Your task to perform on an android device: turn on priority inbox in the gmail app Image 0: 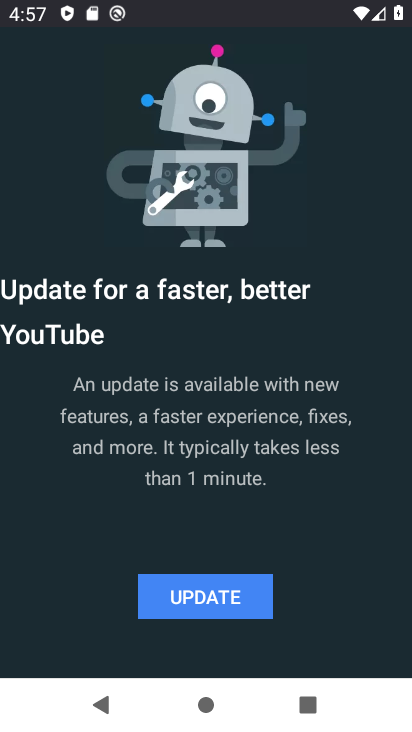
Step 0: press home button
Your task to perform on an android device: turn on priority inbox in the gmail app Image 1: 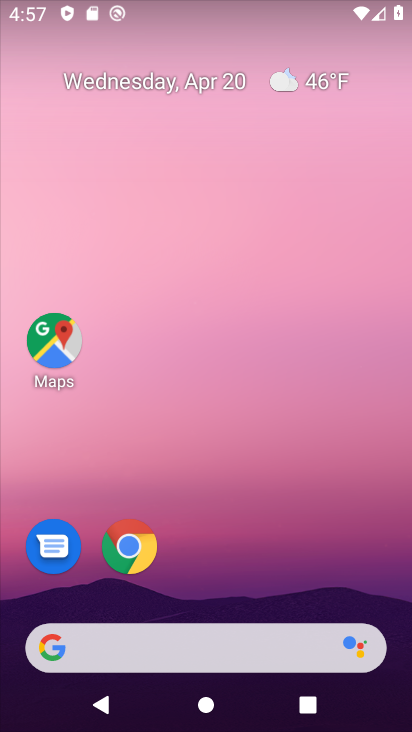
Step 1: drag from (262, 503) to (315, 122)
Your task to perform on an android device: turn on priority inbox in the gmail app Image 2: 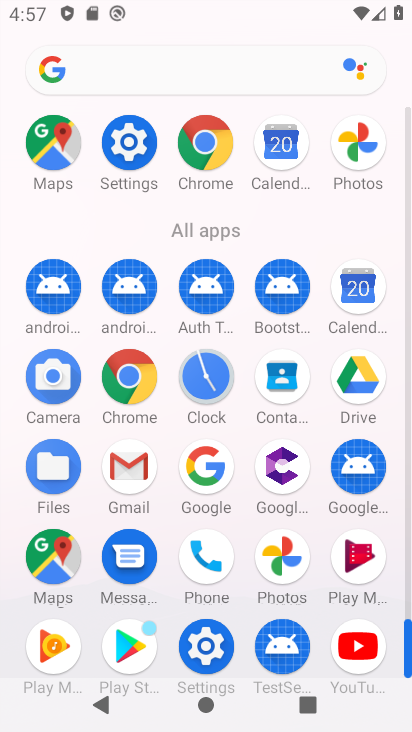
Step 2: click (128, 474)
Your task to perform on an android device: turn on priority inbox in the gmail app Image 3: 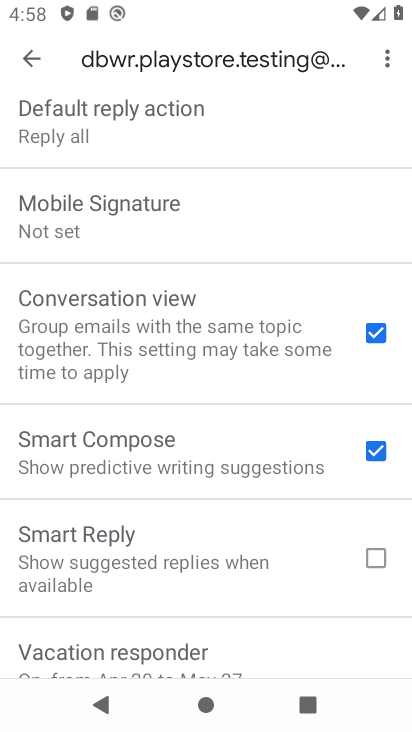
Step 3: drag from (82, 207) to (59, 585)
Your task to perform on an android device: turn on priority inbox in the gmail app Image 4: 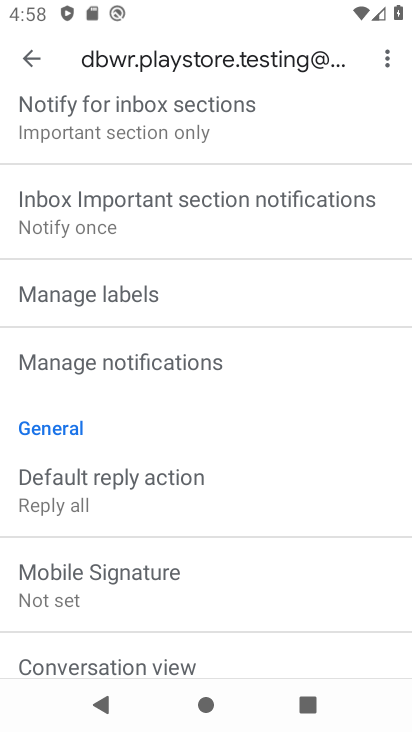
Step 4: drag from (185, 190) to (164, 595)
Your task to perform on an android device: turn on priority inbox in the gmail app Image 5: 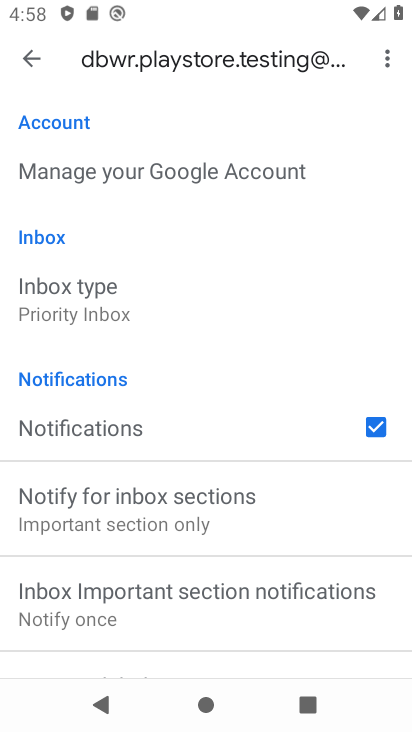
Step 5: click (74, 299)
Your task to perform on an android device: turn on priority inbox in the gmail app Image 6: 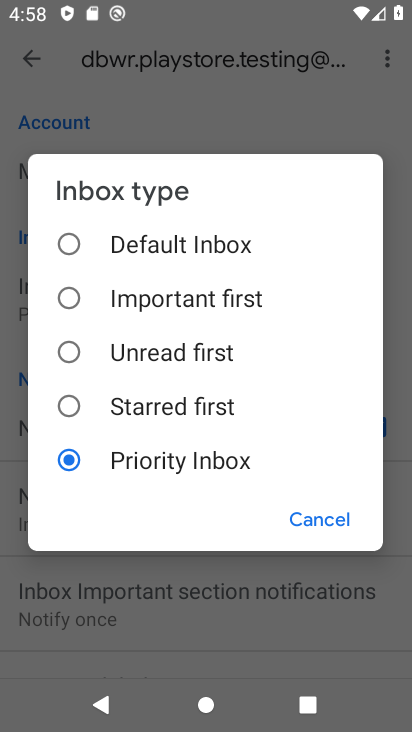
Step 6: task complete